Your task to perform on an android device: What's on my calendar for the rest of the week? Image 0: 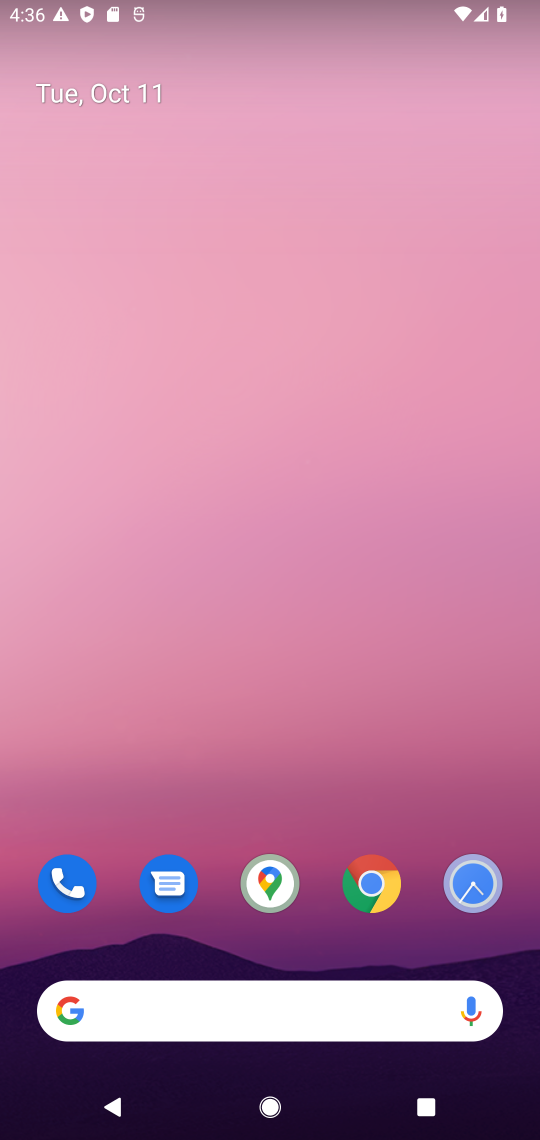
Step 0: drag from (274, 539) to (257, 36)
Your task to perform on an android device: What's on my calendar for the rest of the week? Image 1: 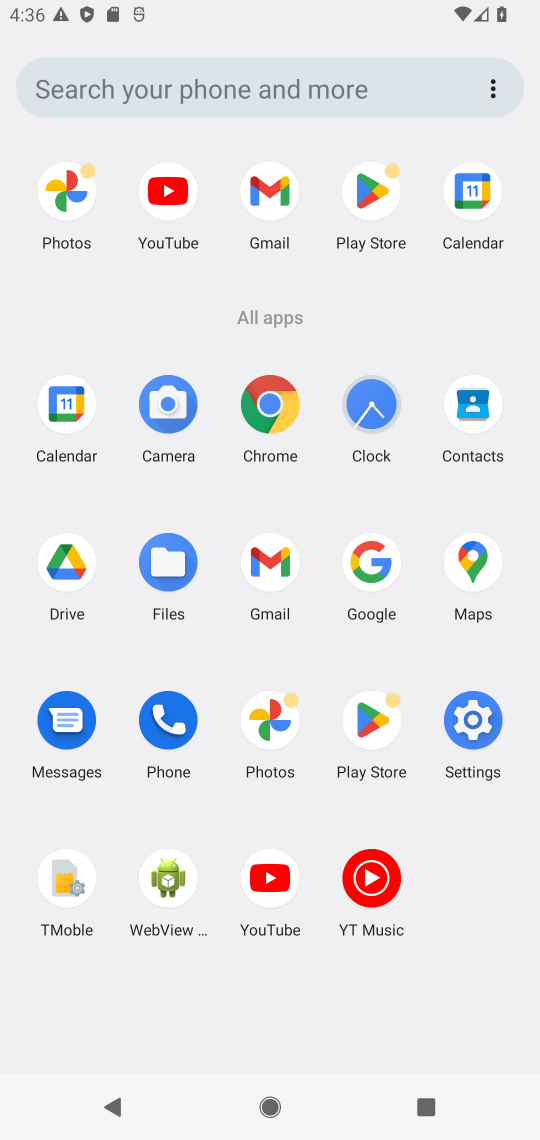
Step 1: click (58, 401)
Your task to perform on an android device: What's on my calendar for the rest of the week? Image 2: 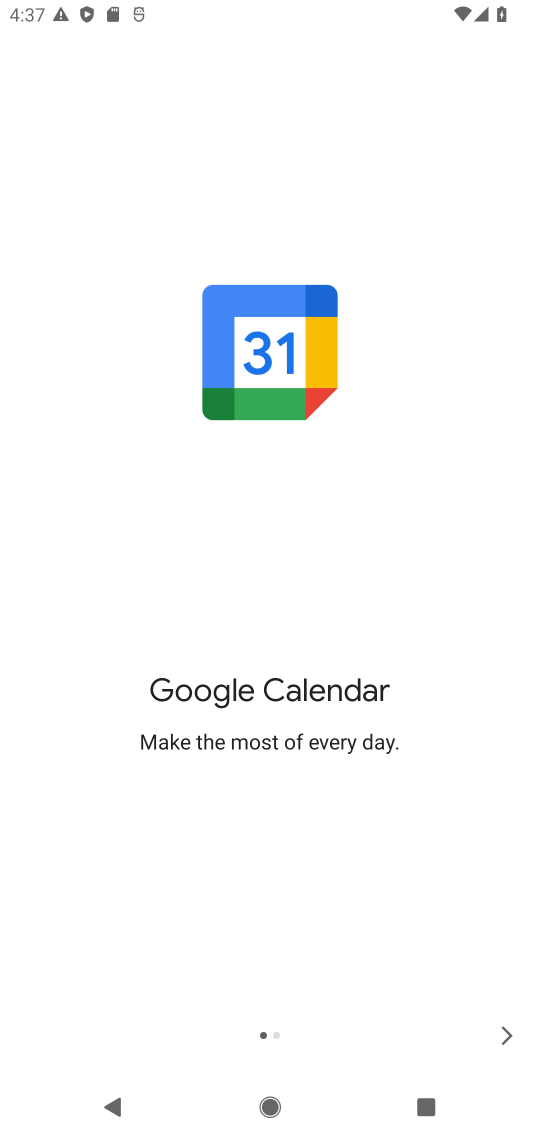
Step 2: click (516, 1014)
Your task to perform on an android device: What's on my calendar for the rest of the week? Image 3: 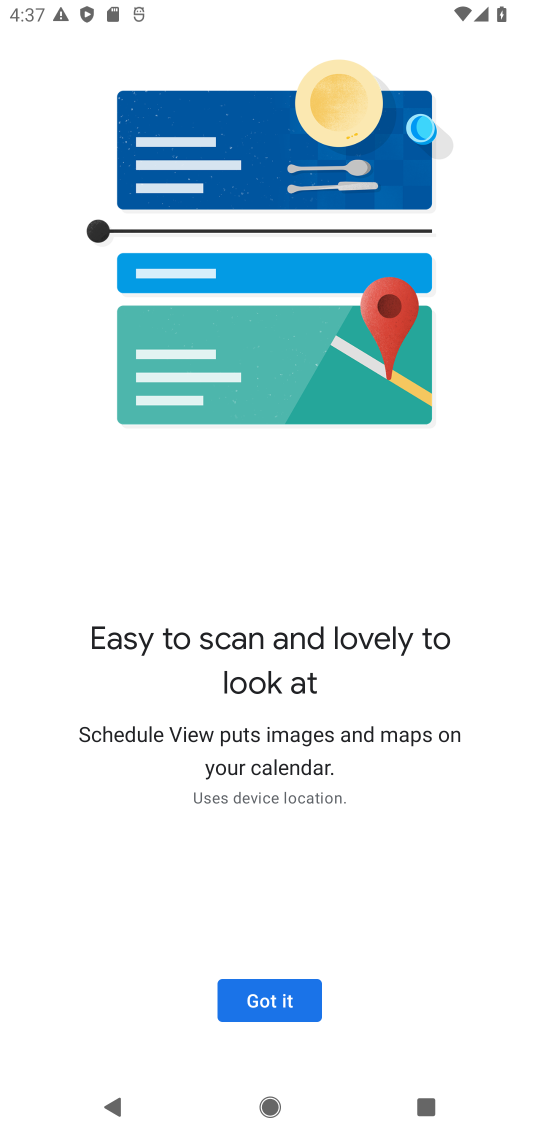
Step 3: click (515, 1020)
Your task to perform on an android device: What's on my calendar for the rest of the week? Image 4: 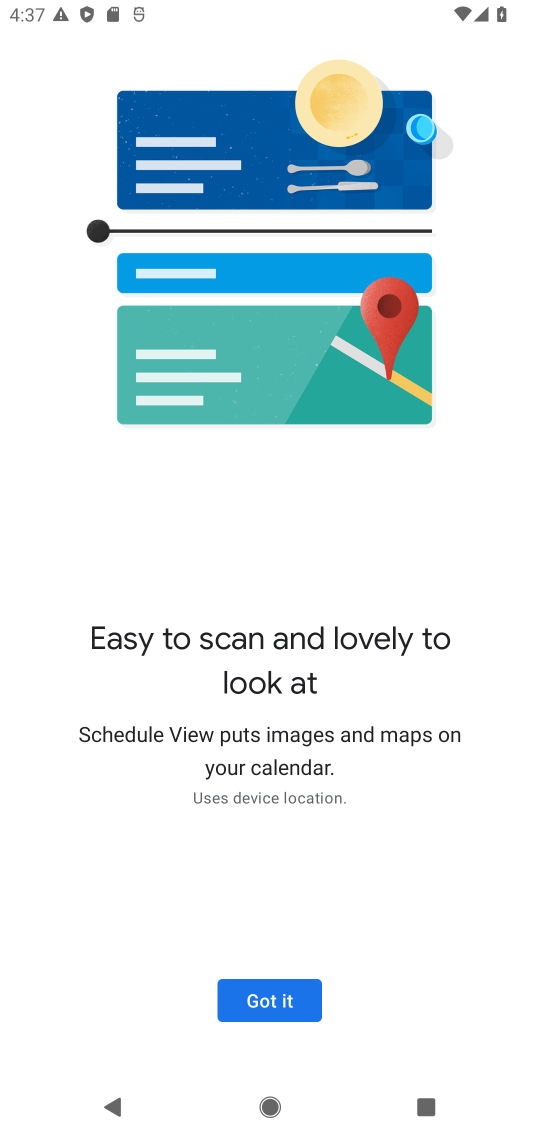
Step 4: click (267, 992)
Your task to perform on an android device: What's on my calendar for the rest of the week? Image 5: 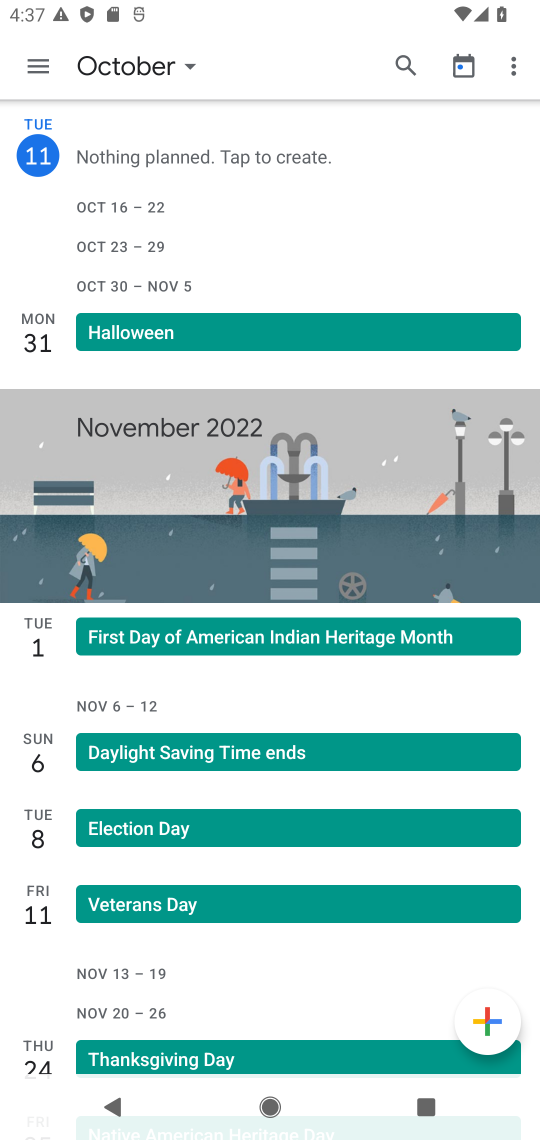
Step 5: click (111, 65)
Your task to perform on an android device: What's on my calendar for the rest of the week? Image 6: 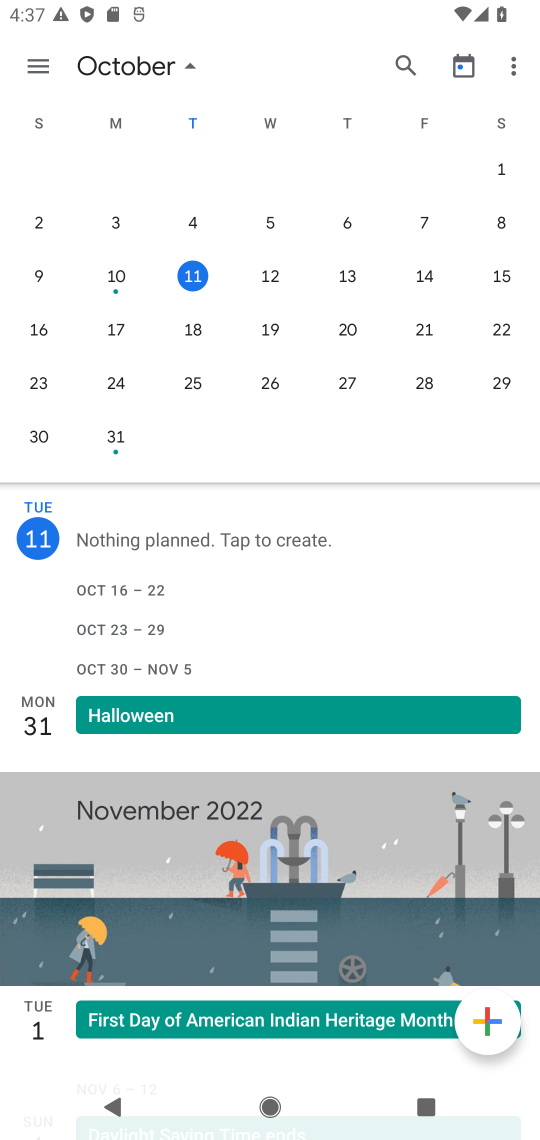
Step 6: click (45, 58)
Your task to perform on an android device: What's on my calendar for the rest of the week? Image 7: 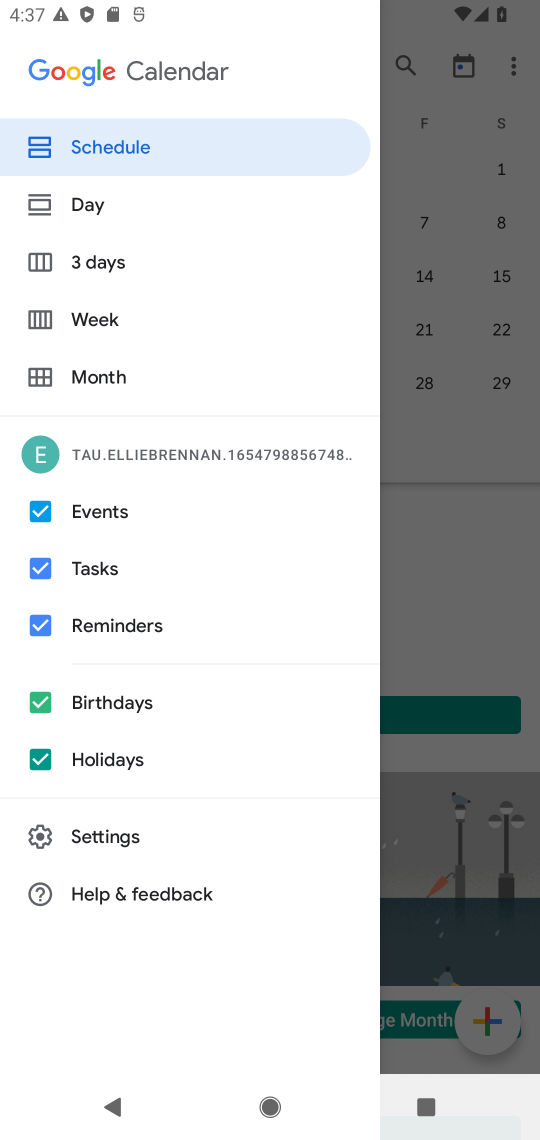
Step 7: click (99, 309)
Your task to perform on an android device: What's on my calendar for the rest of the week? Image 8: 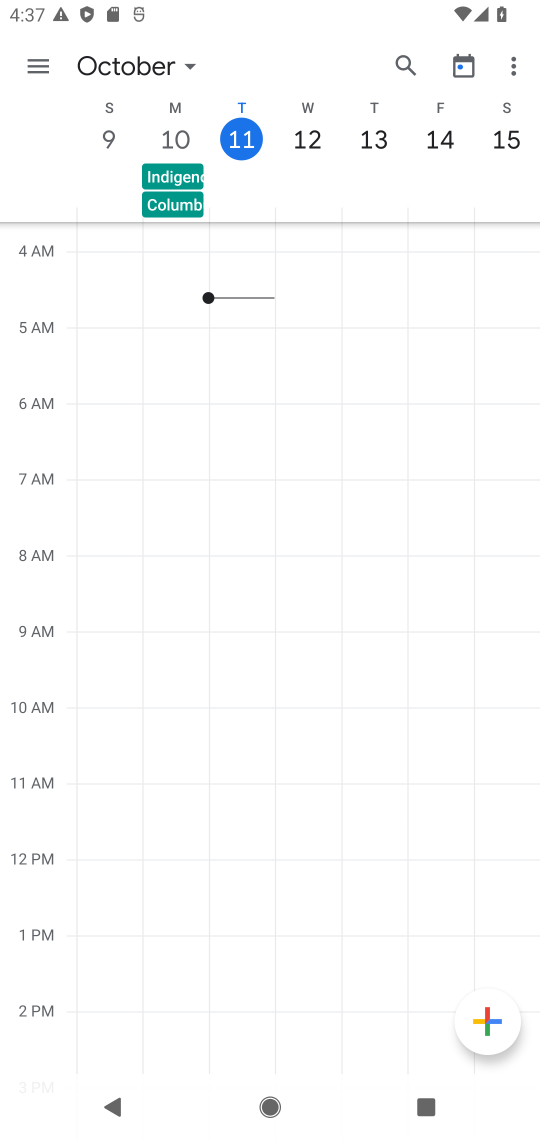
Step 8: task complete